Your task to perform on an android device: Go to calendar. Show me events next week Image 0: 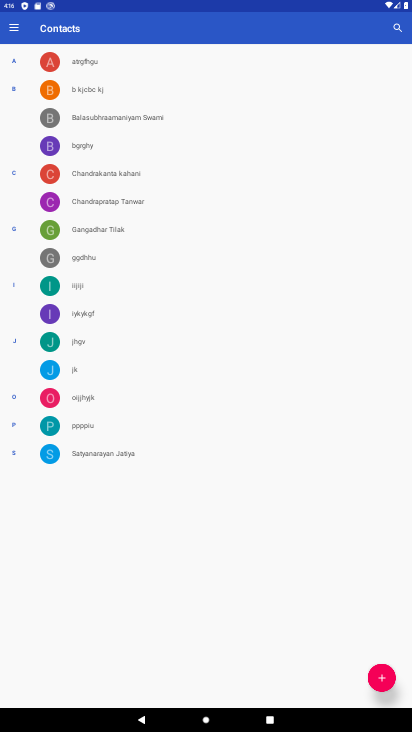
Step 0: press home button
Your task to perform on an android device: Go to calendar. Show me events next week Image 1: 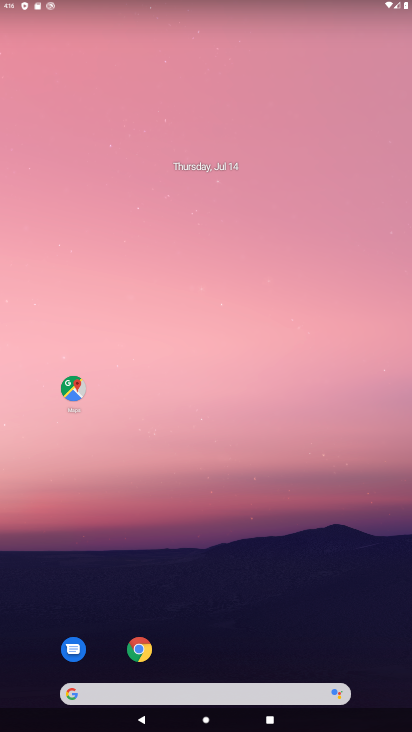
Step 1: drag from (203, 654) to (211, 149)
Your task to perform on an android device: Go to calendar. Show me events next week Image 2: 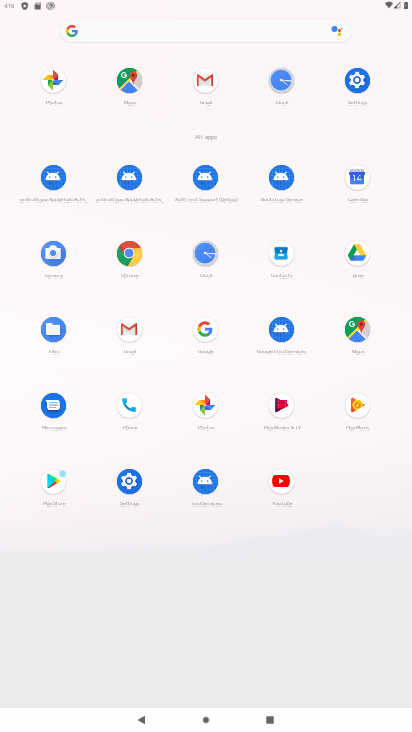
Step 2: click (356, 176)
Your task to perform on an android device: Go to calendar. Show me events next week Image 3: 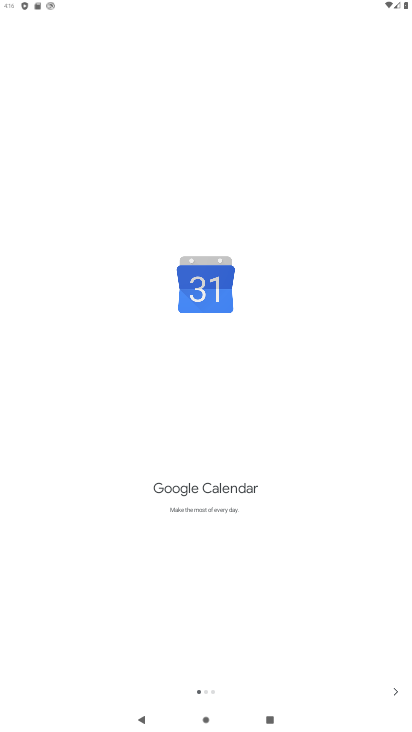
Step 3: click (398, 693)
Your task to perform on an android device: Go to calendar. Show me events next week Image 4: 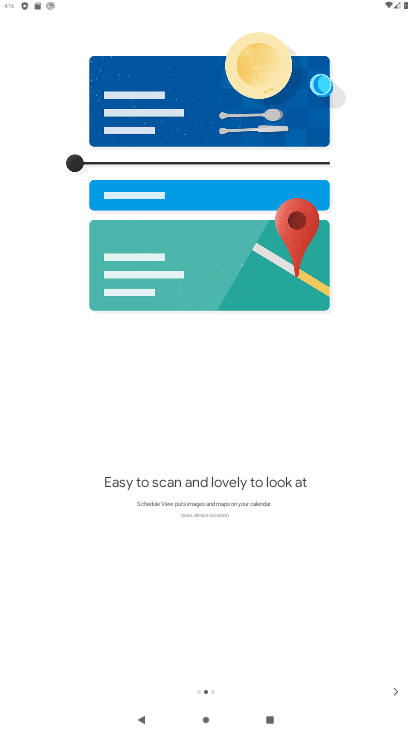
Step 4: click (398, 693)
Your task to perform on an android device: Go to calendar. Show me events next week Image 5: 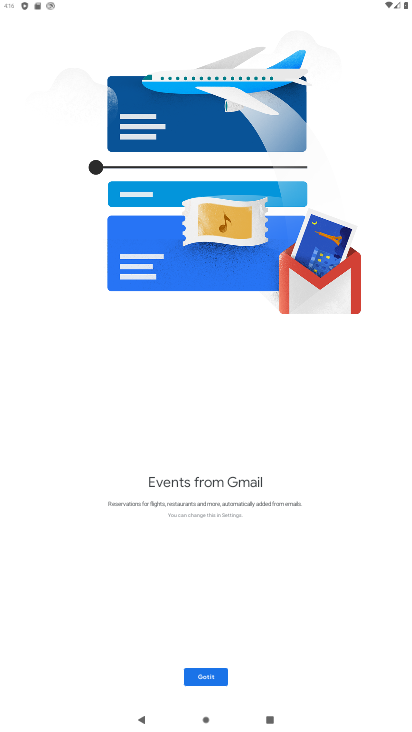
Step 5: click (210, 679)
Your task to perform on an android device: Go to calendar. Show me events next week Image 6: 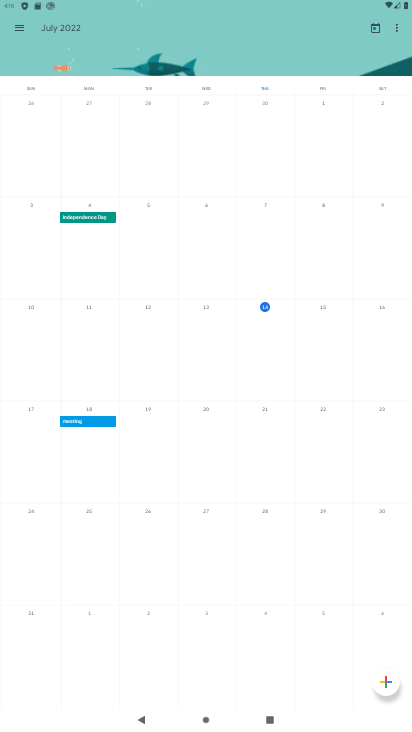
Step 6: click (15, 23)
Your task to perform on an android device: Go to calendar. Show me events next week Image 7: 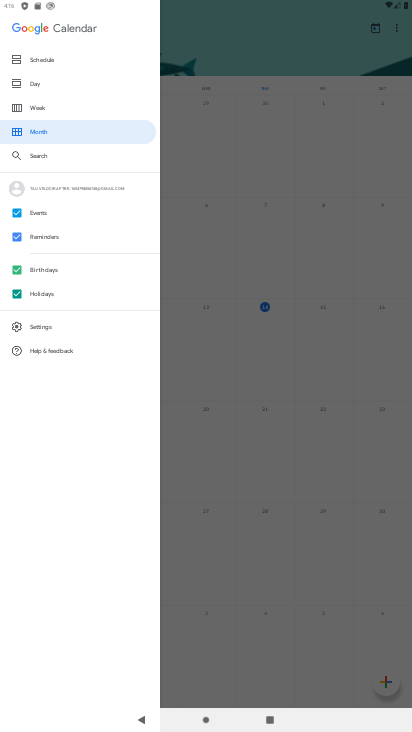
Step 7: click (13, 292)
Your task to perform on an android device: Go to calendar. Show me events next week Image 8: 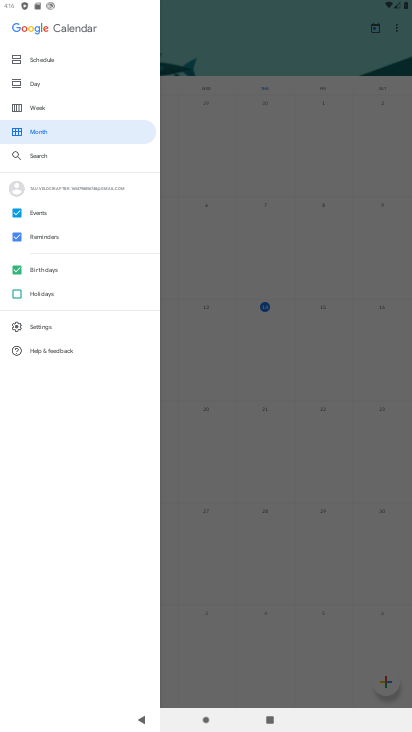
Step 8: click (16, 263)
Your task to perform on an android device: Go to calendar. Show me events next week Image 9: 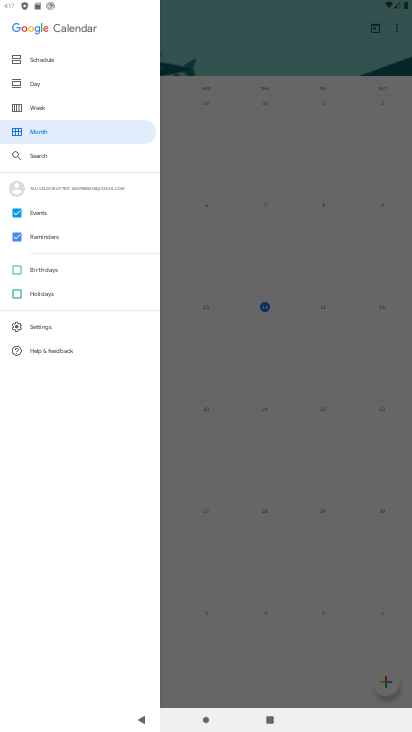
Step 9: click (14, 234)
Your task to perform on an android device: Go to calendar. Show me events next week Image 10: 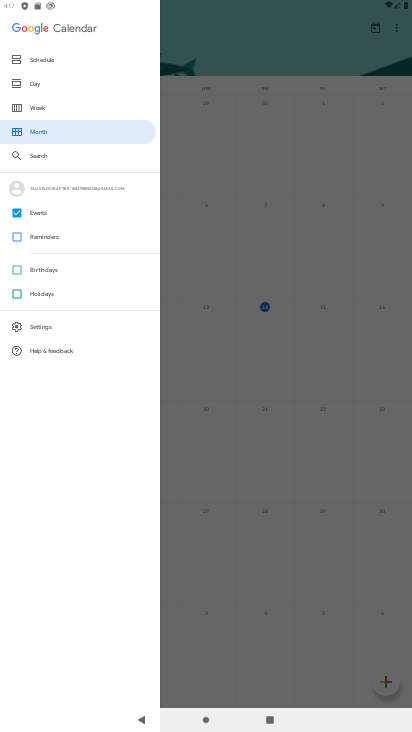
Step 10: click (48, 109)
Your task to perform on an android device: Go to calendar. Show me events next week Image 11: 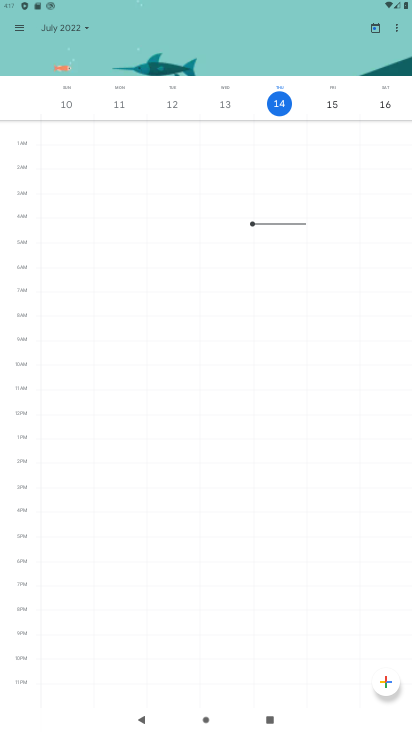
Step 11: task complete